Your task to perform on an android device: refresh tabs in the chrome app Image 0: 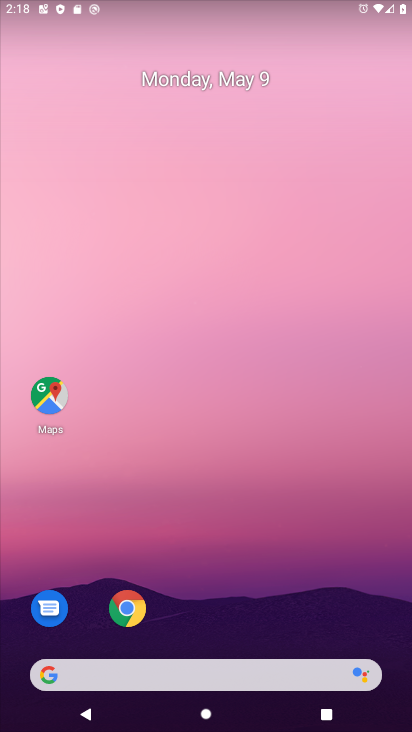
Step 0: drag from (186, 635) to (198, 191)
Your task to perform on an android device: refresh tabs in the chrome app Image 1: 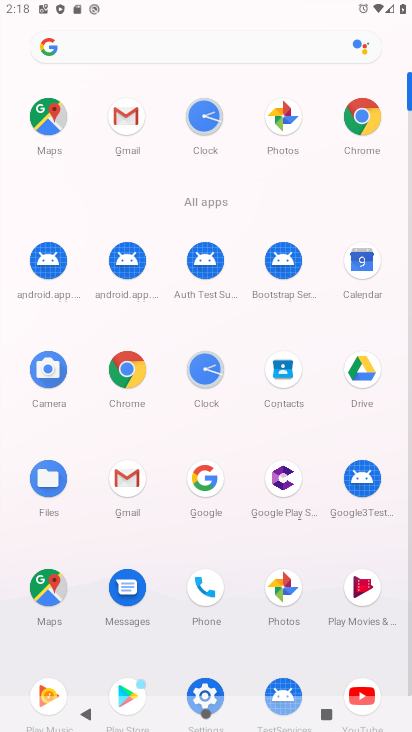
Step 1: click (364, 129)
Your task to perform on an android device: refresh tabs in the chrome app Image 2: 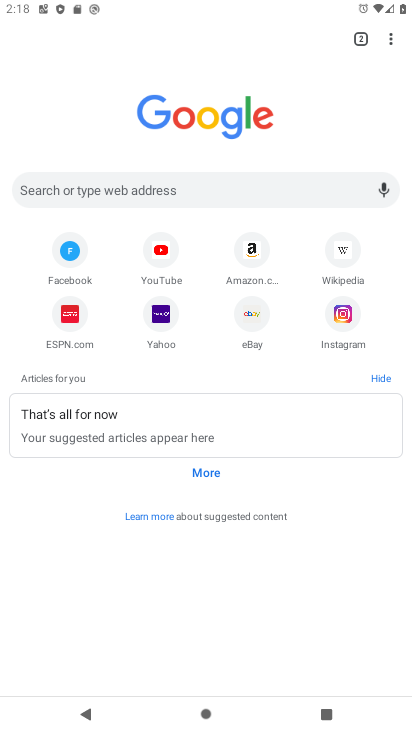
Step 2: click (376, 48)
Your task to perform on an android device: refresh tabs in the chrome app Image 3: 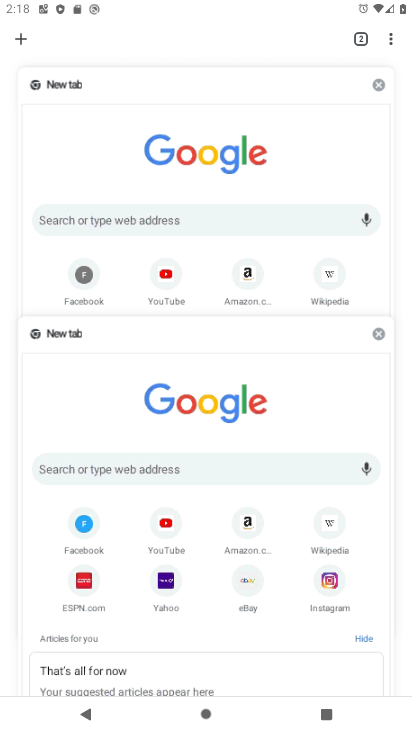
Step 3: task complete